Your task to perform on an android device: change alarm snooze length Image 0: 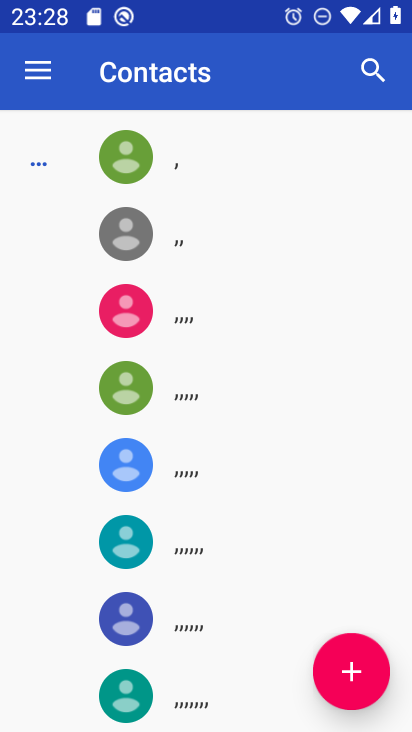
Step 0: press home button
Your task to perform on an android device: change alarm snooze length Image 1: 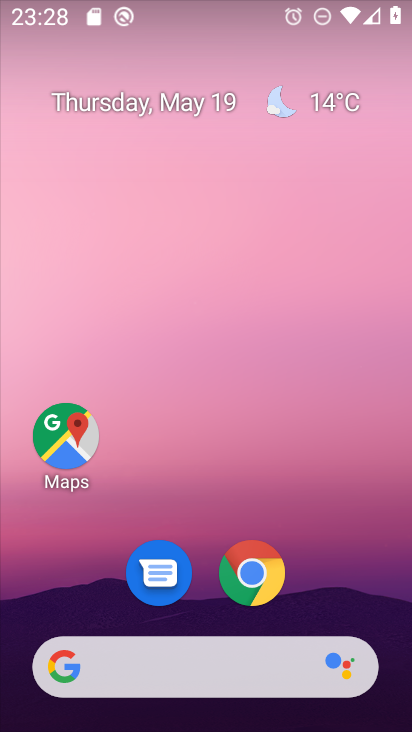
Step 1: drag from (339, 535) to (380, 154)
Your task to perform on an android device: change alarm snooze length Image 2: 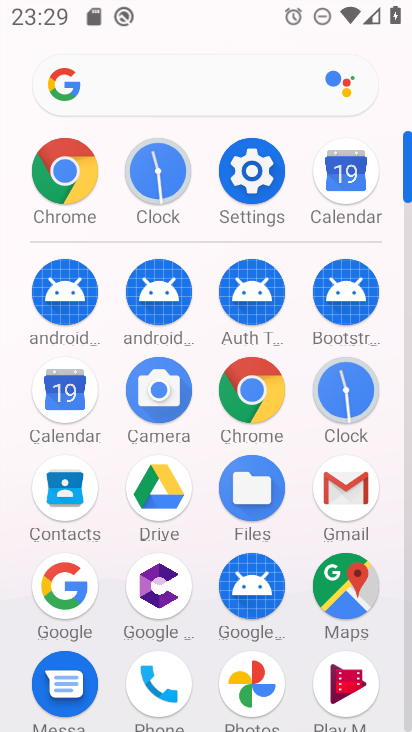
Step 2: click (171, 174)
Your task to perform on an android device: change alarm snooze length Image 3: 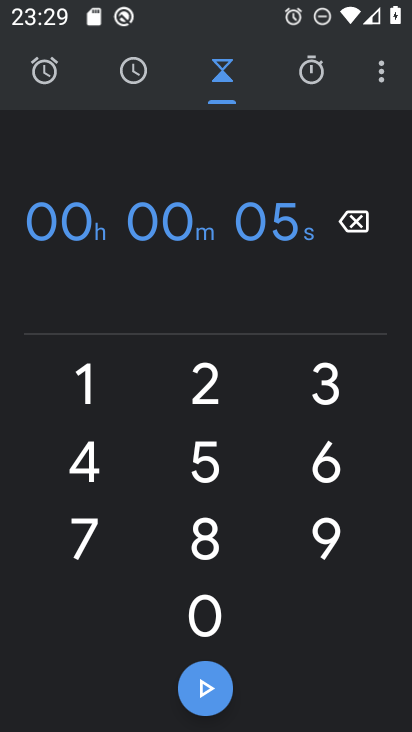
Step 3: click (381, 71)
Your task to perform on an android device: change alarm snooze length Image 4: 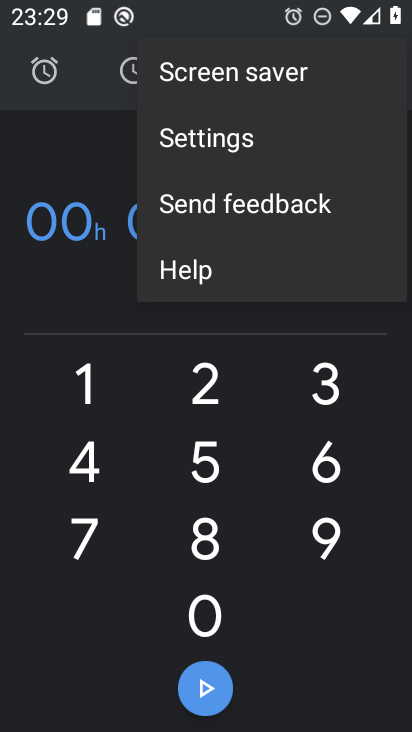
Step 4: click (214, 163)
Your task to perform on an android device: change alarm snooze length Image 5: 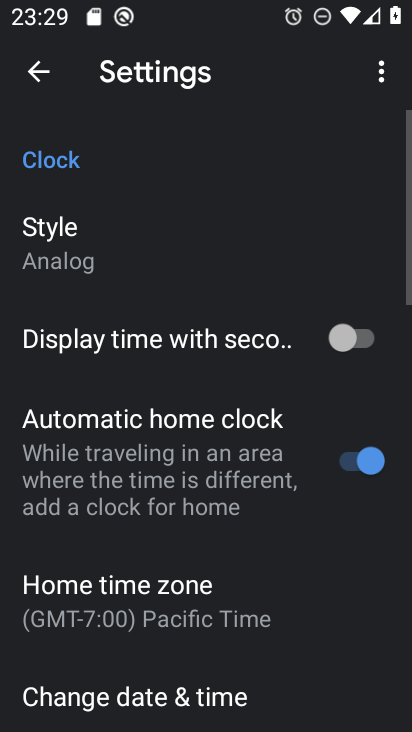
Step 5: drag from (191, 572) to (287, 163)
Your task to perform on an android device: change alarm snooze length Image 6: 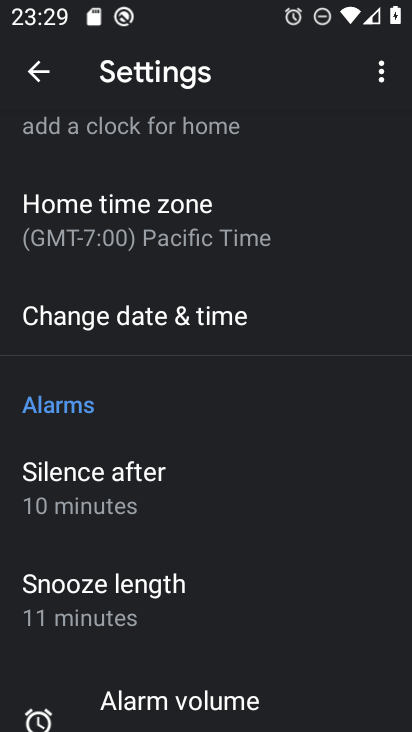
Step 6: drag from (249, 504) to (326, 165)
Your task to perform on an android device: change alarm snooze length Image 7: 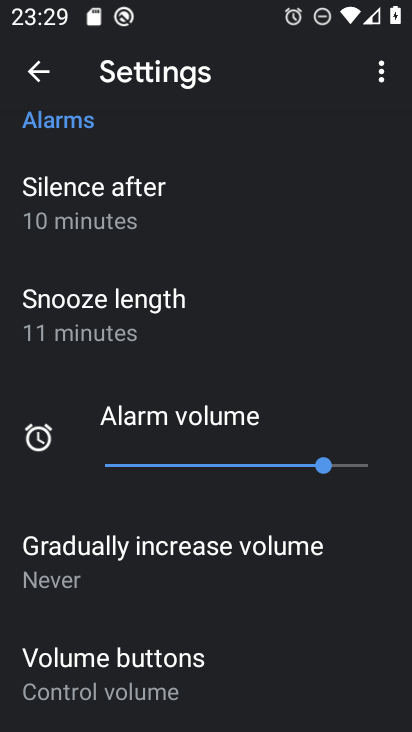
Step 7: click (158, 298)
Your task to perform on an android device: change alarm snooze length Image 8: 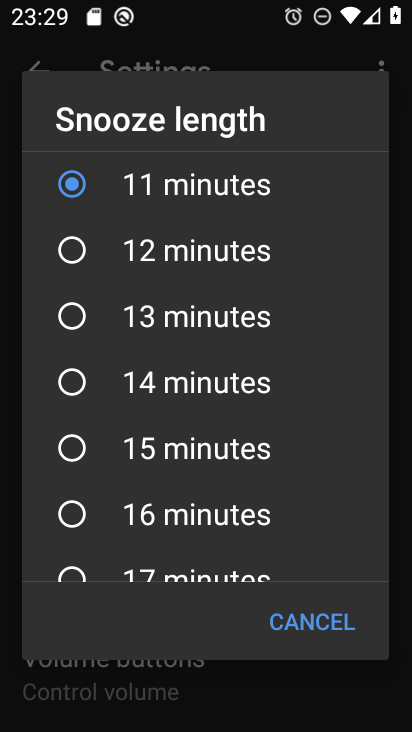
Step 8: click (201, 258)
Your task to perform on an android device: change alarm snooze length Image 9: 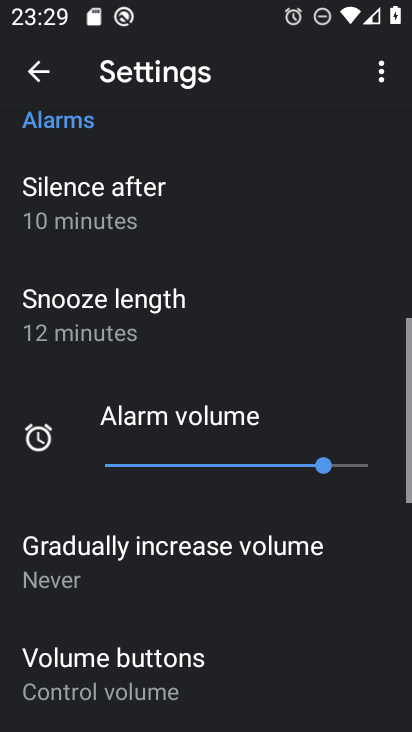
Step 9: task complete